Your task to perform on an android device: Go to wifi settings Image 0: 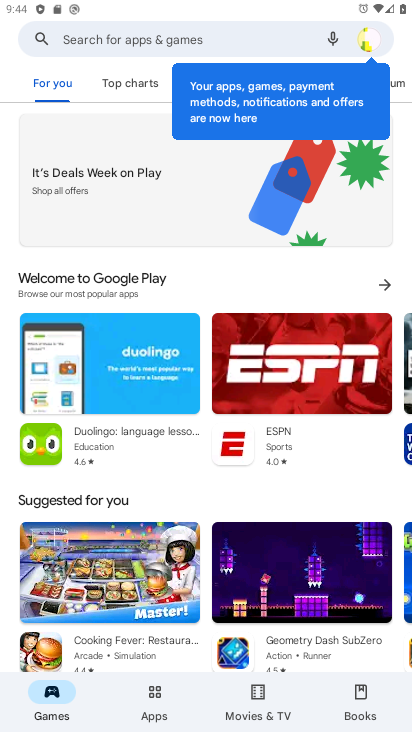
Step 0: press home button
Your task to perform on an android device: Go to wifi settings Image 1: 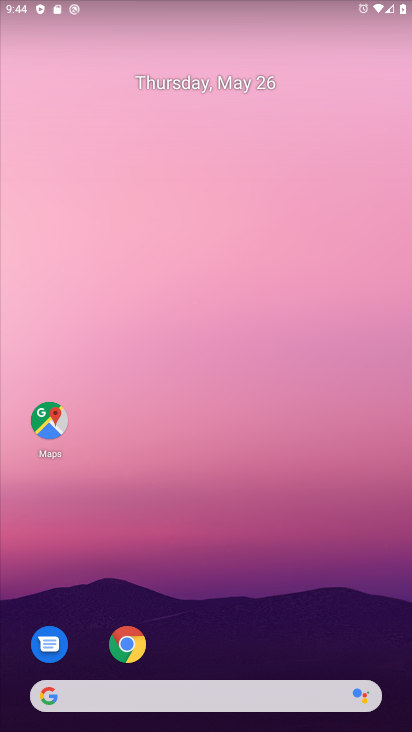
Step 1: drag from (237, 636) to (245, 300)
Your task to perform on an android device: Go to wifi settings Image 2: 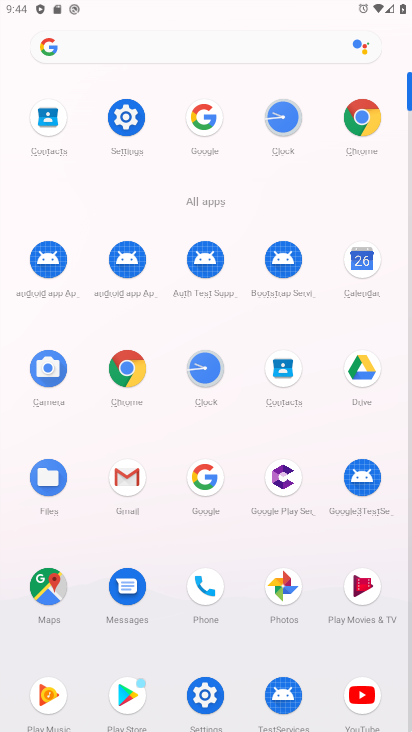
Step 2: click (119, 124)
Your task to perform on an android device: Go to wifi settings Image 3: 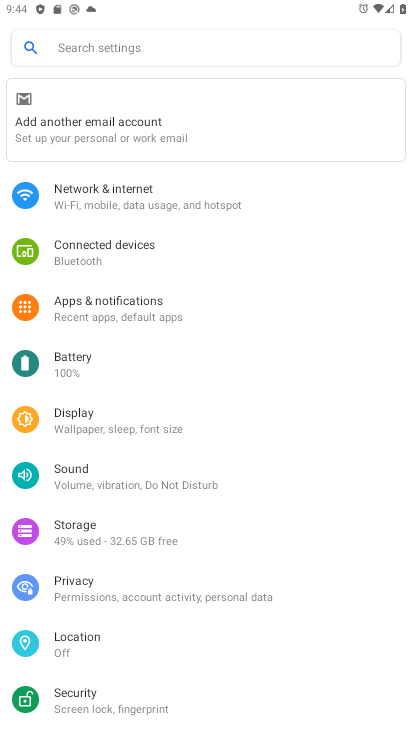
Step 3: click (175, 193)
Your task to perform on an android device: Go to wifi settings Image 4: 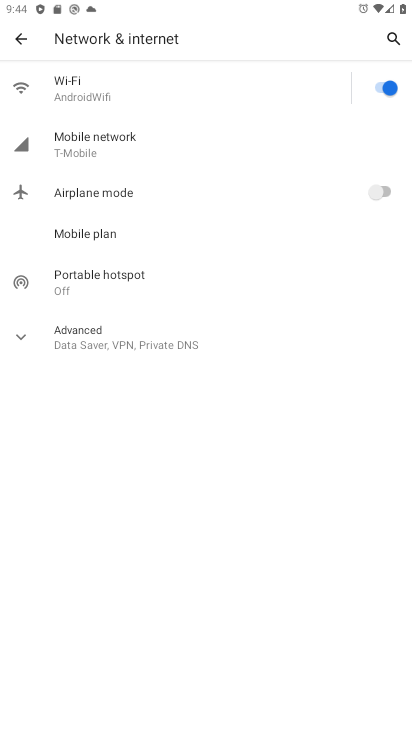
Step 4: click (122, 95)
Your task to perform on an android device: Go to wifi settings Image 5: 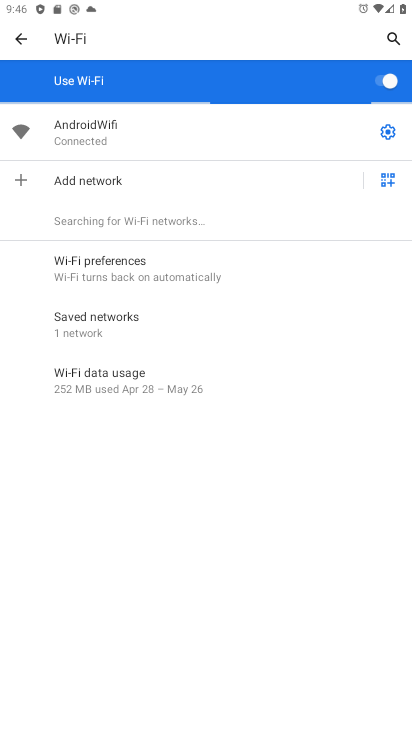
Step 5: task complete